Your task to perform on an android device: Check the news Image 0: 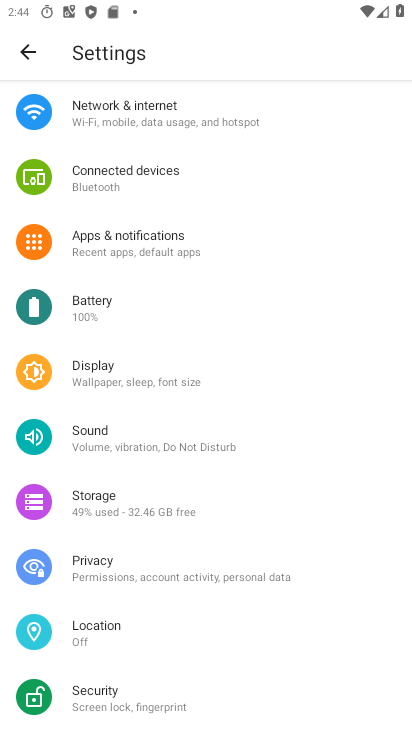
Step 0: press home button
Your task to perform on an android device: Check the news Image 1: 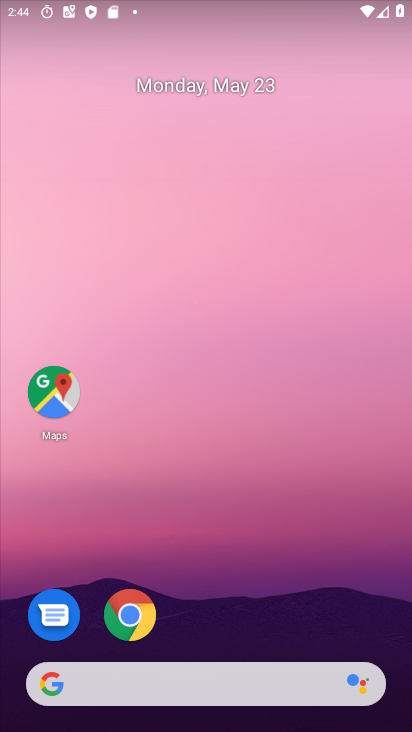
Step 1: click (111, 683)
Your task to perform on an android device: Check the news Image 2: 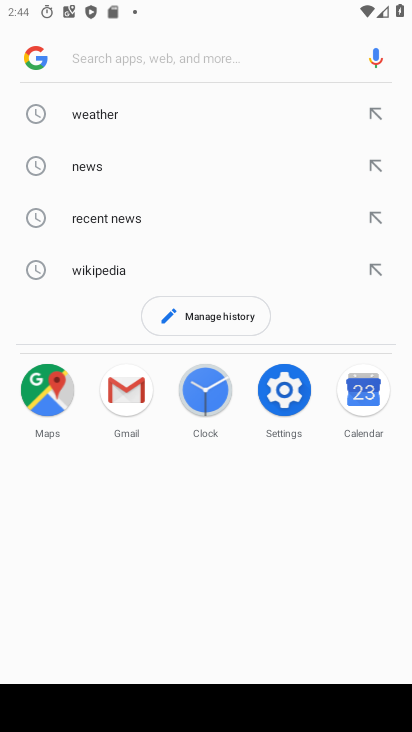
Step 2: click (84, 165)
Your task to perform on an android device: Check the news Image 3: 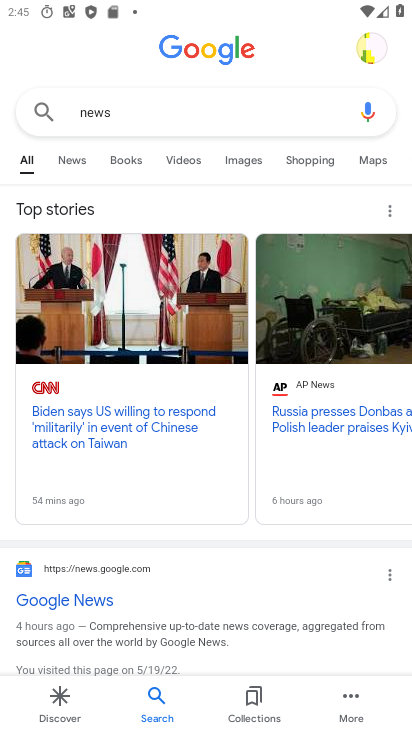
Step 3: click (70, 167)
Your task to perform on an android device: Check the news Image 4: 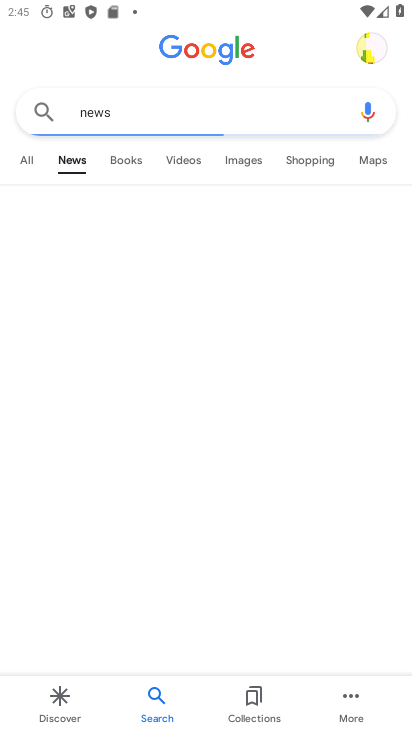
Step 4: click (75, 160)
Your task to perform on an android device: Check the news Image 5: 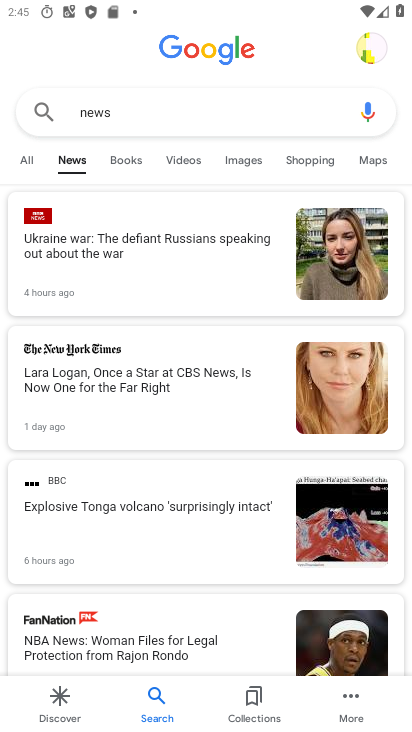
Step 5: task complete